Your task to perform on an android device: Open eBay Image 0: 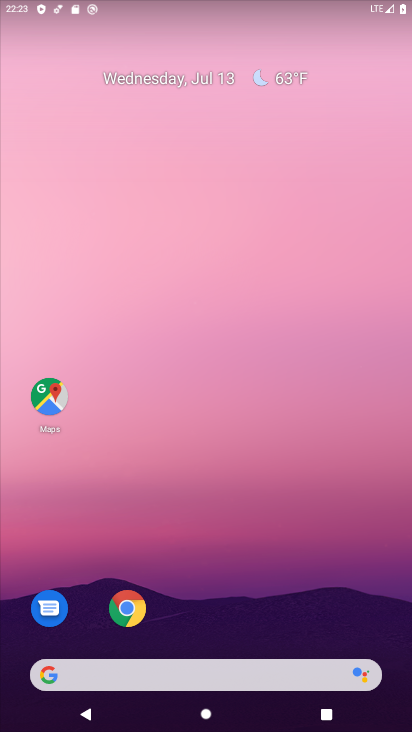
Step 0: drag from (218, 540) to (197, 140)
Your task to perform on an android device: Open eBay Image 1: 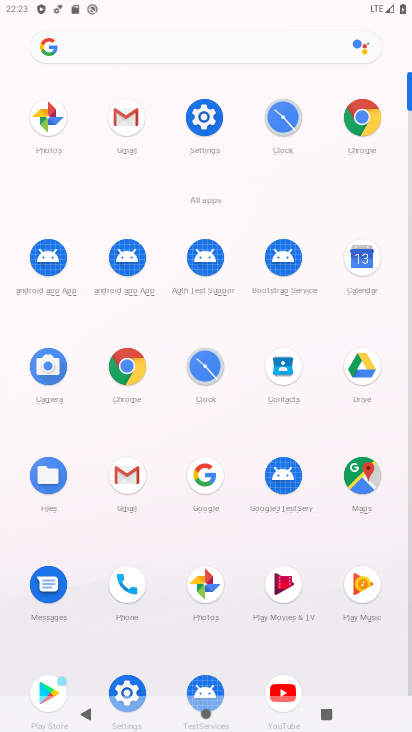
Step 1: click (118, 365)
Your task to perform on an android device: Open eBay Image 2: 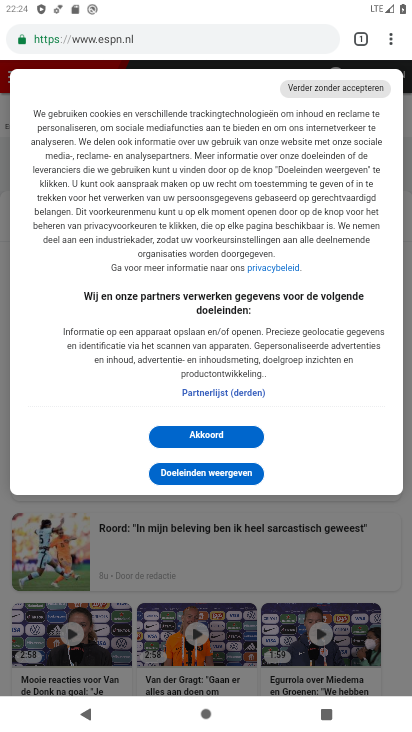
Step 2: click (160, 36)
Your task to perform on an android device: Open eBay Image 3: 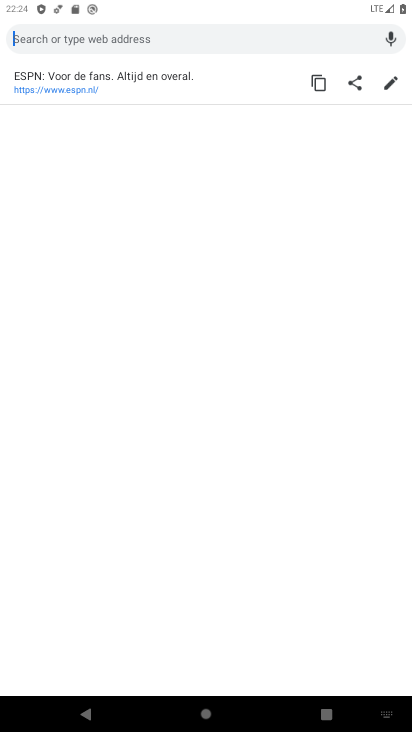
Step 3: type "eBay"
Your task to perform on an android device: Open eBay Image 4: 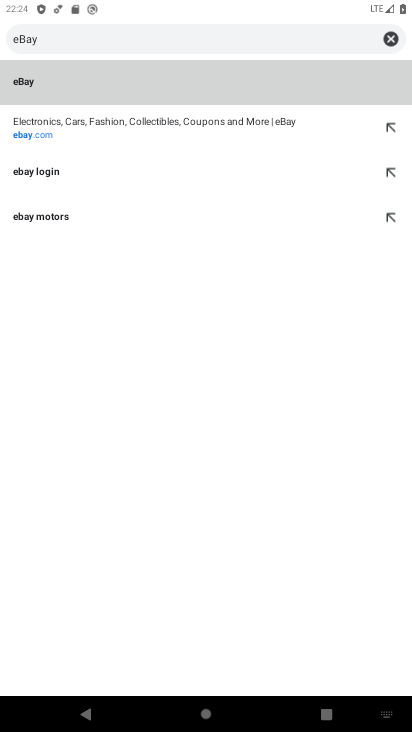
Step 4: click (141, 89)
Your task to perform on an android device: Open eBay Image 5: 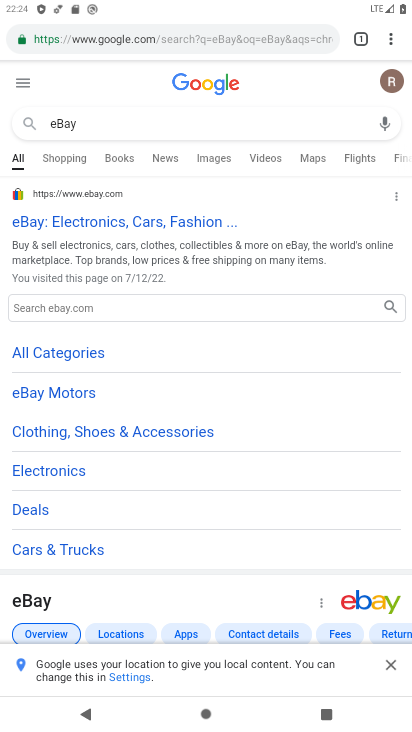
Step 5: task complete